Your task to perform on an android device: change the clock display to show seconds Image 0: 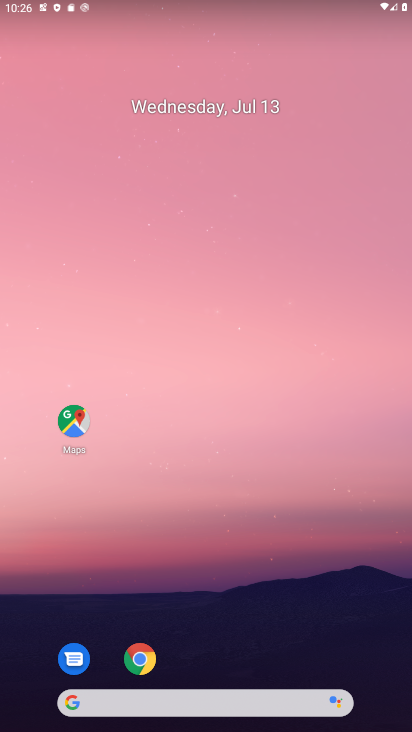
Step 0: drag from (292, 434) to (273, 302)
Your task to perform on an android device: change the clock display to show seconds Image 1: 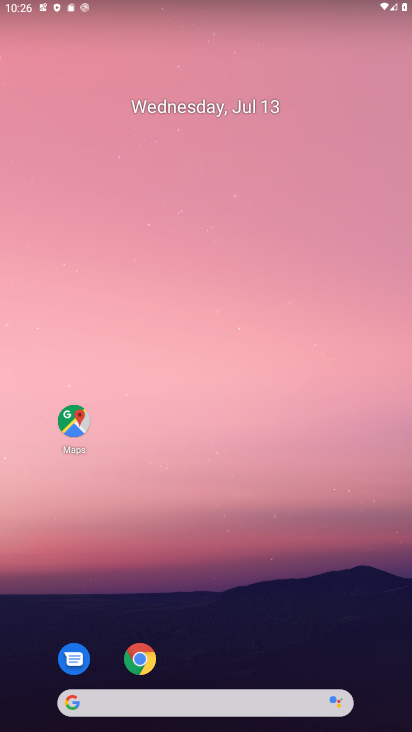
Step 1: drag from (228, 654) to (211, 215)
Your task to perform on an android device: change the clock display to show seconds Image 2: 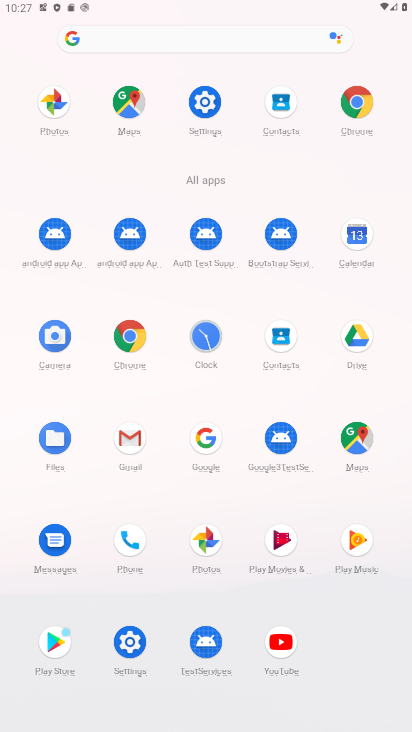
Step 2: click (199, 339)
Your task to perform on an android device: change the clock display to show seconds Image 3: 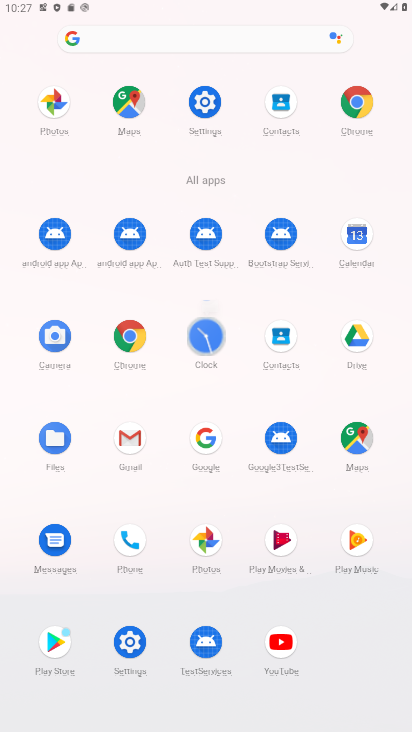
Step 3: click (200, 336)
Your task to perform on an android device: change the clock display to show seconds Image 4: 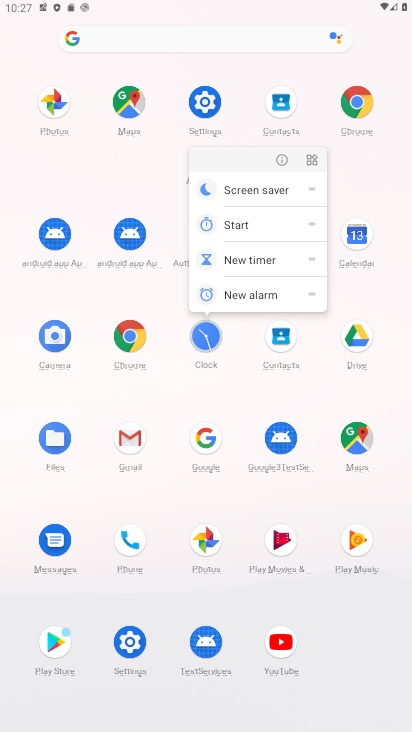
Step 4: click (205, 335)
Your task to perform on an android device: change the clock display to show seconds Image 5: 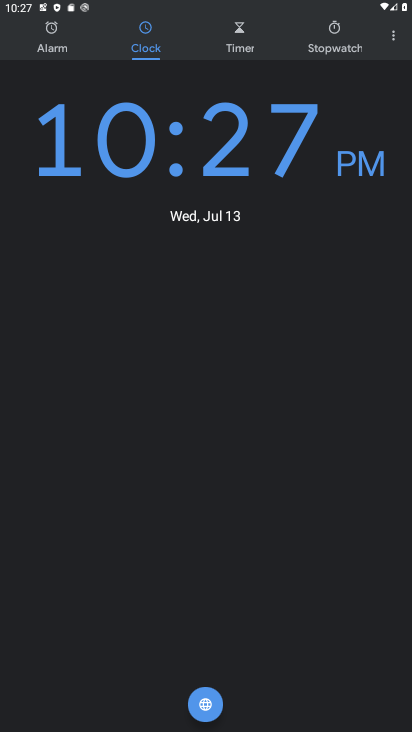
Step 5: click (395, 30)
Your task to perform on an android device: change the clock display to show seconds Image 6: 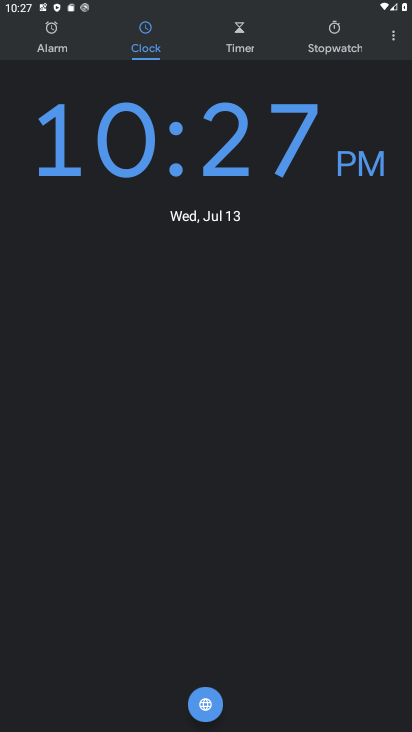
Step 6: click (393, 46)
Your task to perform on an android device: change the clock display to show seconds Image 7: 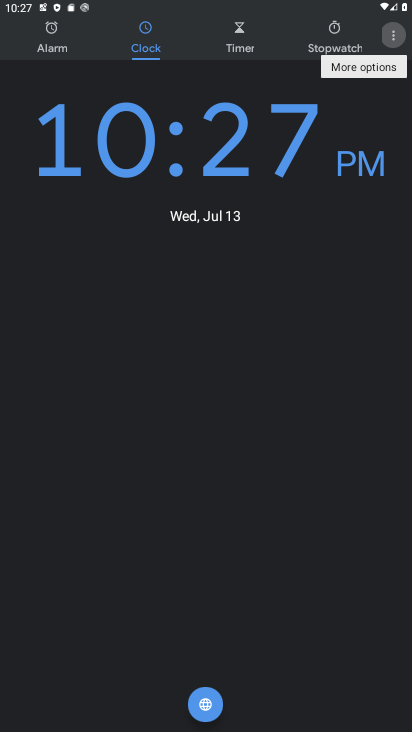
Step 7: click (394, 47)
Your task to perform on an android device: change the clock display to show seconds Image 8: 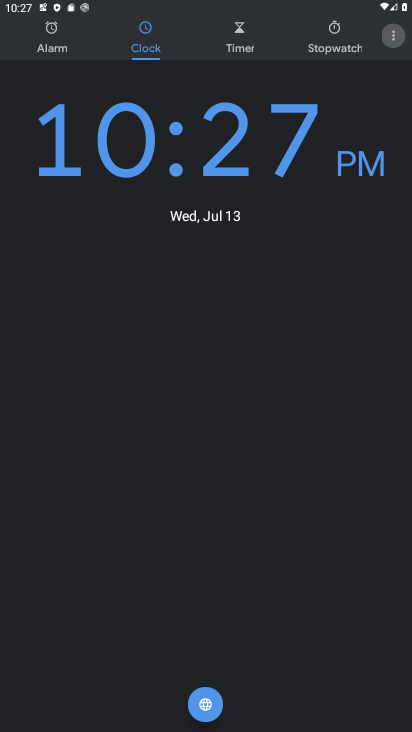
Step 8: click (394, 47)
Your task to perform on an android device: change the clock display to show seconds Image 9: 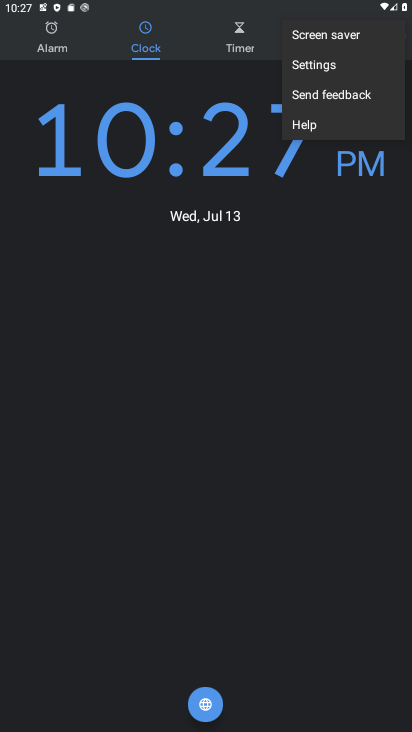
Step 9: click (395, 48)
Your task to perform on an android device: change the clock display to show seconds Image 10: 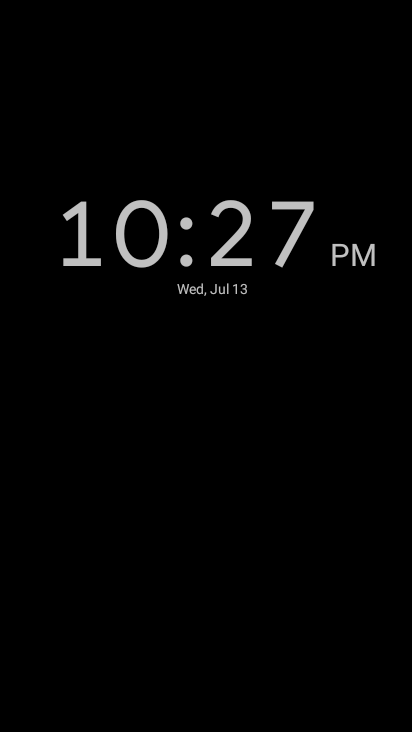
Step 10: press back button
Your task to perform on an android device: change the clock display to show seconds Image 11: 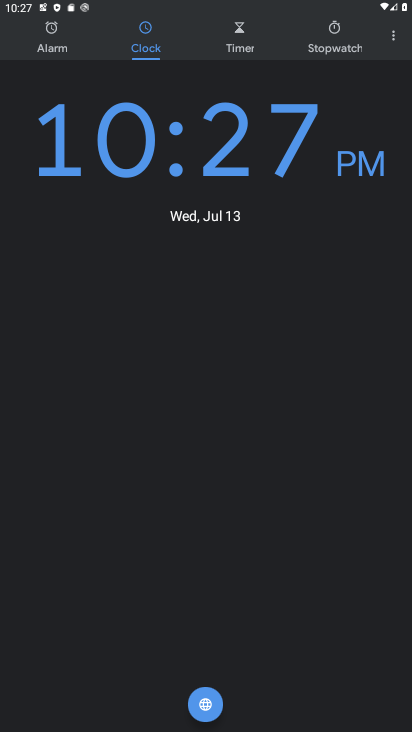
Step 11: drag from (391, 39) to (345, 121)
Your task to perform on an android device: change the clock display to show seconds Image 12: 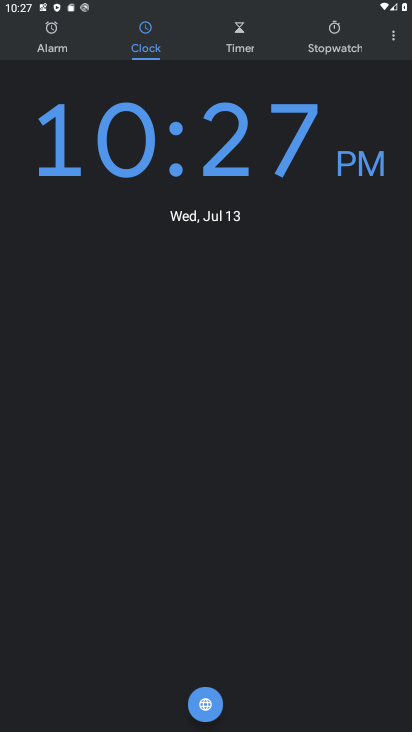
Step 12: click (302, 62)
Your task to perform on an android device: change the clock display to show seconds Image 13: 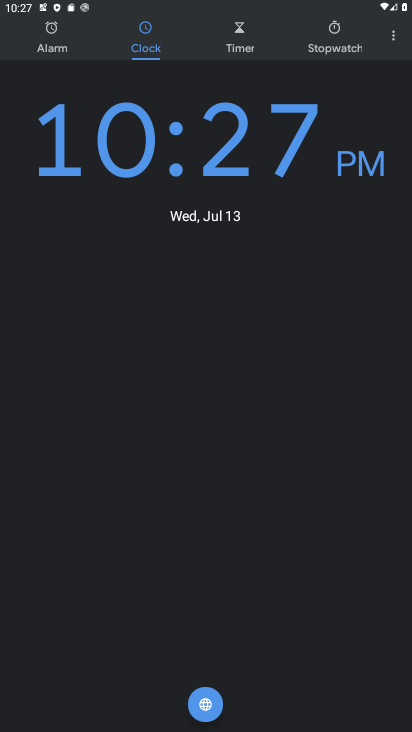
Step 13: click (303, 63)
Your task to perform on an android device: change the clock display to show seconds Image 14: 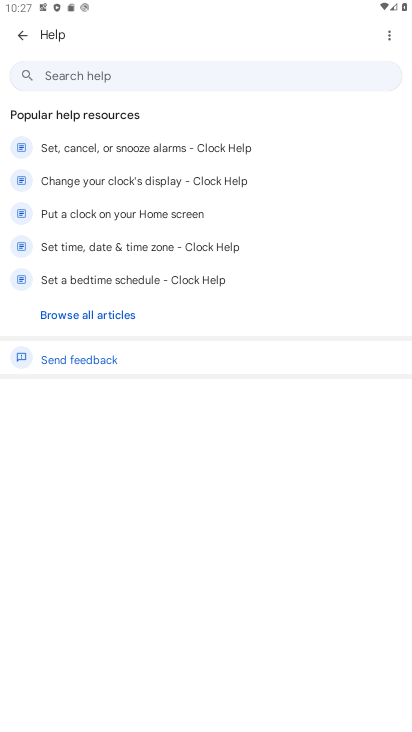
Step 14: click (28, 35)
Your task to perform on an android device: change the clock display to show seconds Image 15: 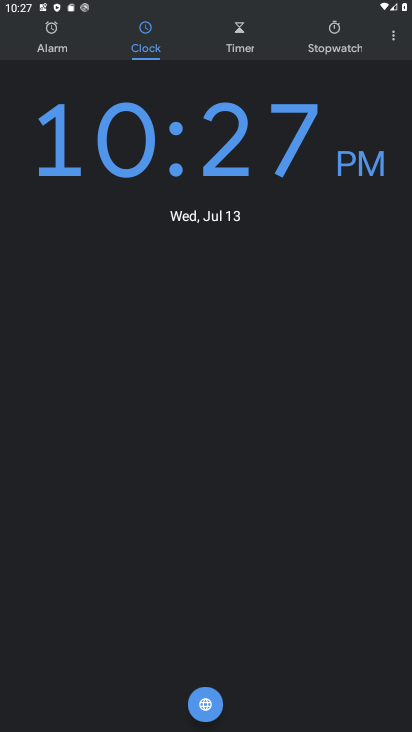
Step 15: drag from (394, 36) to (386, 70)
Your task to perform on an android device: change the clock display to show seconds Image 16: 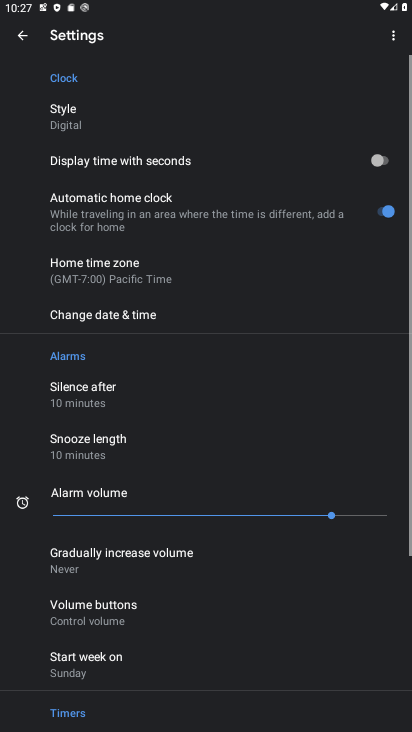
Step 16: click (356, 59)
Your task to perform on an android device: change the clock display to show seconds Image 17: 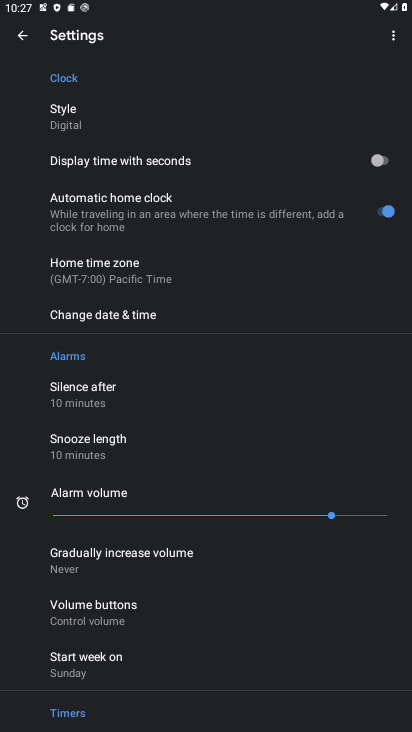
Step 17: click (376, 160)
Your task to perform on an android device: change the clock display to show seconds Image 18: 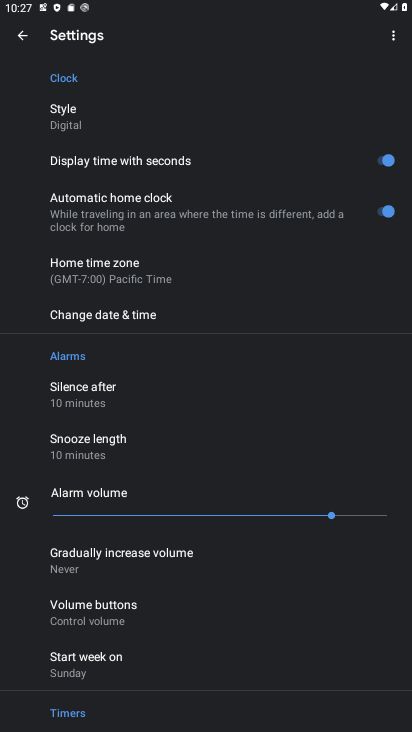
Step 18: task complete